Your task to perform on an android device: Open settings Image 0: 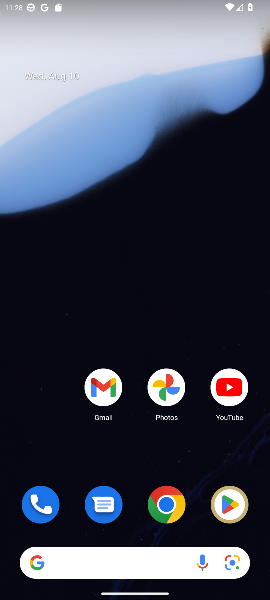
Step 0: press home button
Your task to perform on an android device: Open settings Image 1: 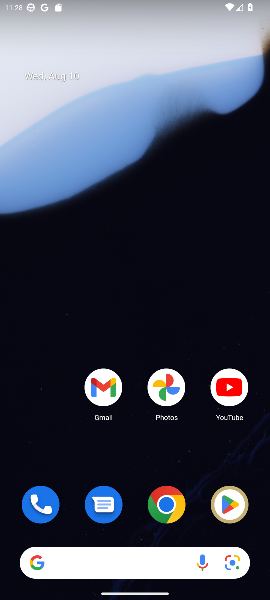
Step 1: drag from (61, 439) to (75, 78)
Your task to perform on an android device: Open settings Image 2: 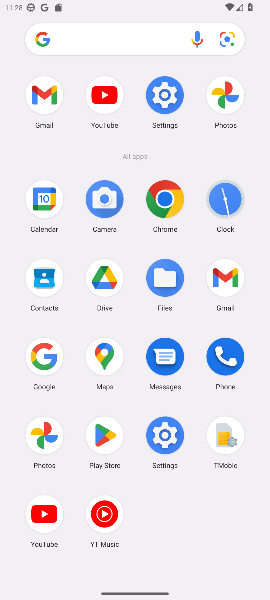
Step 2: click (171, 94)
Your task to perform on an android device: Open settings Image 3: 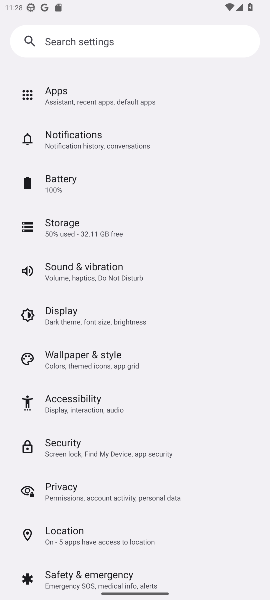
Step 3: task complete